Your task to perform on an android device: set default search engine in the chrome app Image 0: 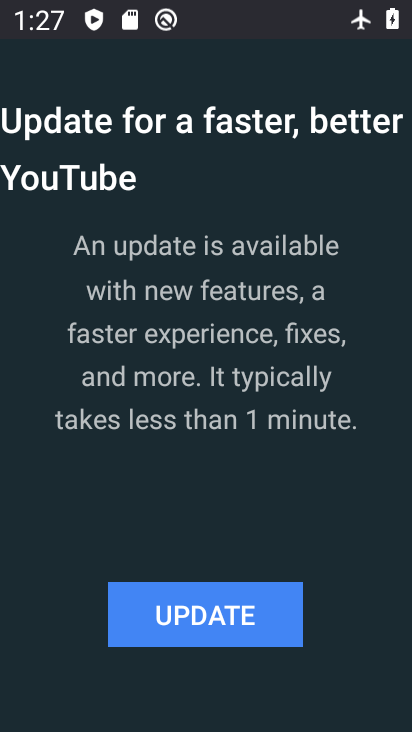
Step 0: press back button
Your task to perform on an android device: set default search engine in the chrome app Image 1: 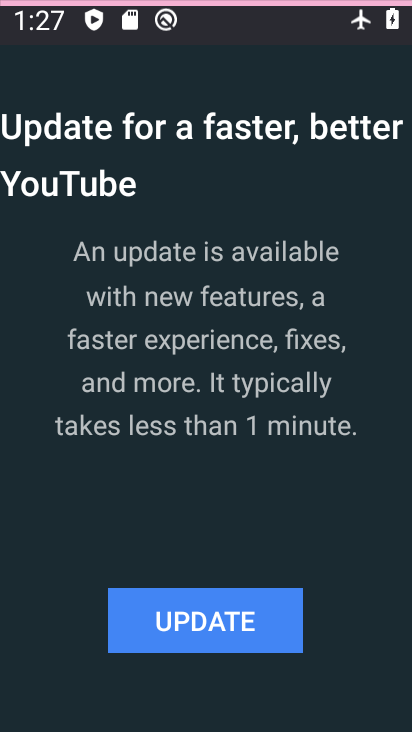
Step 1: press back button
Your task to perform on an android device: set default search engine in the chrome app Image 2: 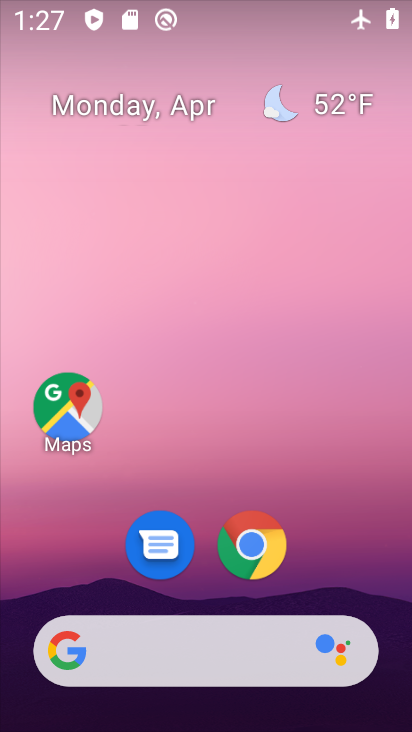
Step 2: click (249, 535)
Your task to perform on an android device: set default search engine in the chrome app Image 3: 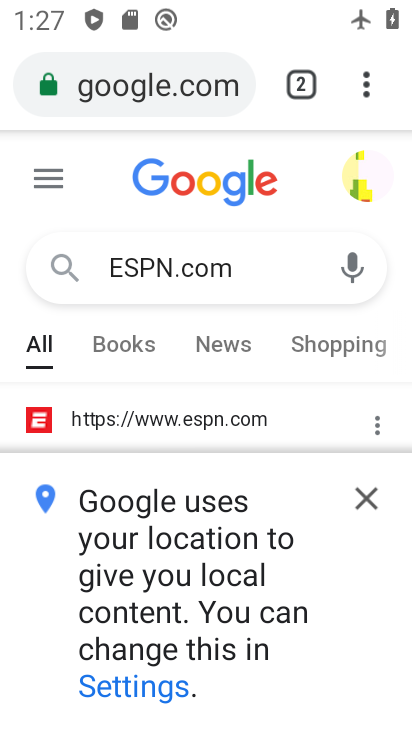
Step 3: drag from (366, 81) to (171, 573)
Your task to perform on an android device: set default search engine in the chrome app Image 4: 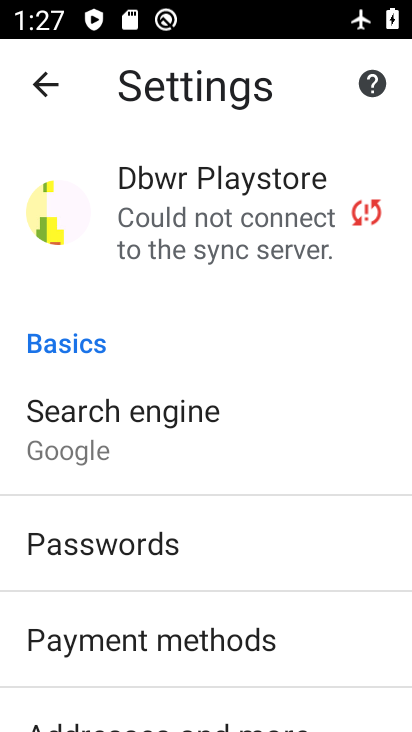
Step 4: click (79, 422)
Your task to perform on an android device: set default search engine in the chrome app Image 5: 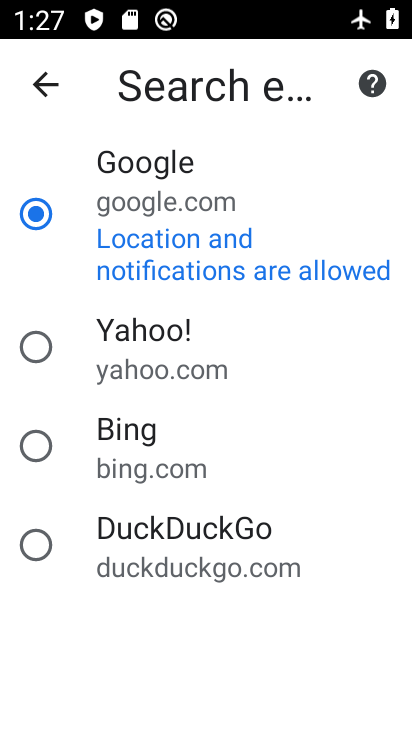
Step 5: click (31, 347)
Your task to perform on an android device: set default search engine in the chrome app Image 6: 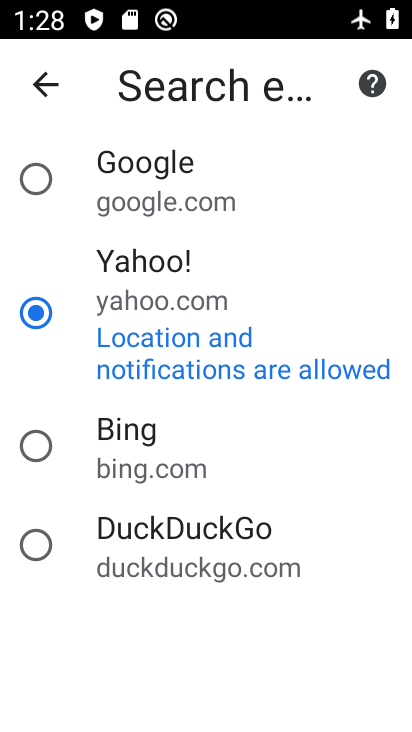
Step 6: task complete